Your task to perform on an android device: star an email in the gmail app Image 0: 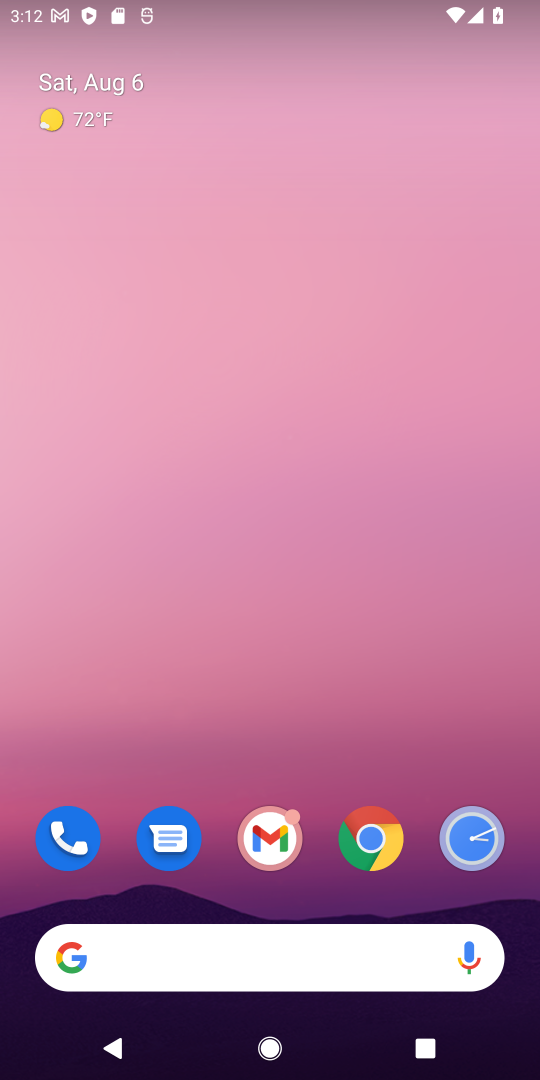
Step 0: click (266, 833)
Your task to perform on an android device: star an email in the gmail app Image 1: 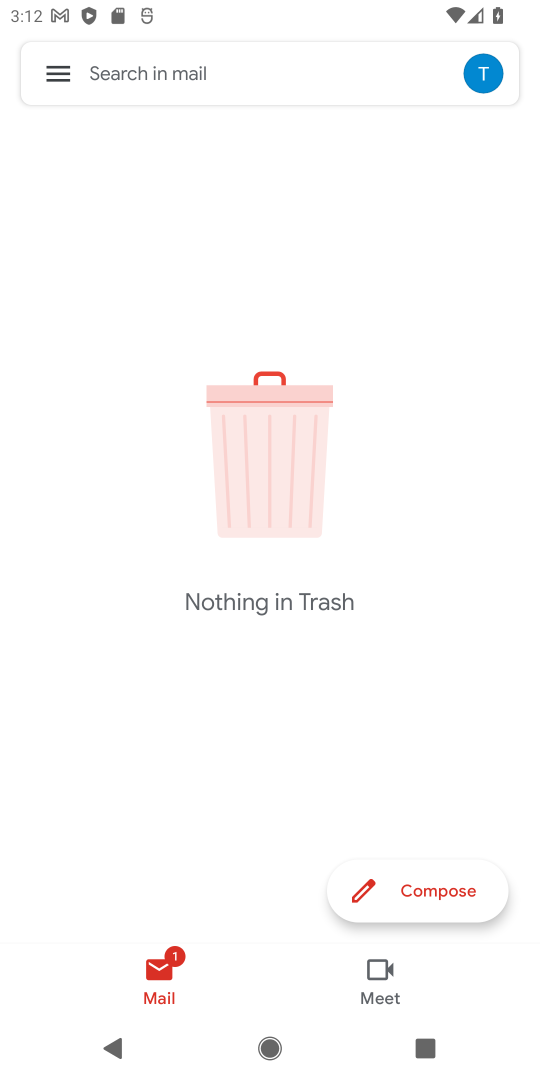
Step 1: click (44, 77)
Your task to perform on an android device: star an email in the gmail app Image 2: 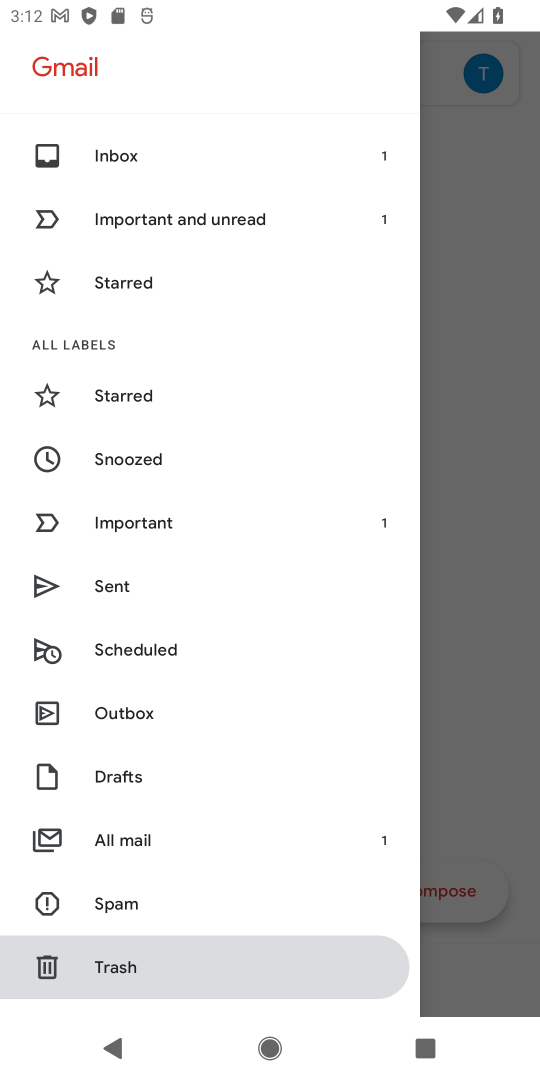
Step 2: click (120, 151)
Your task to perform on an android device: star an email in the gmail app Image 3: 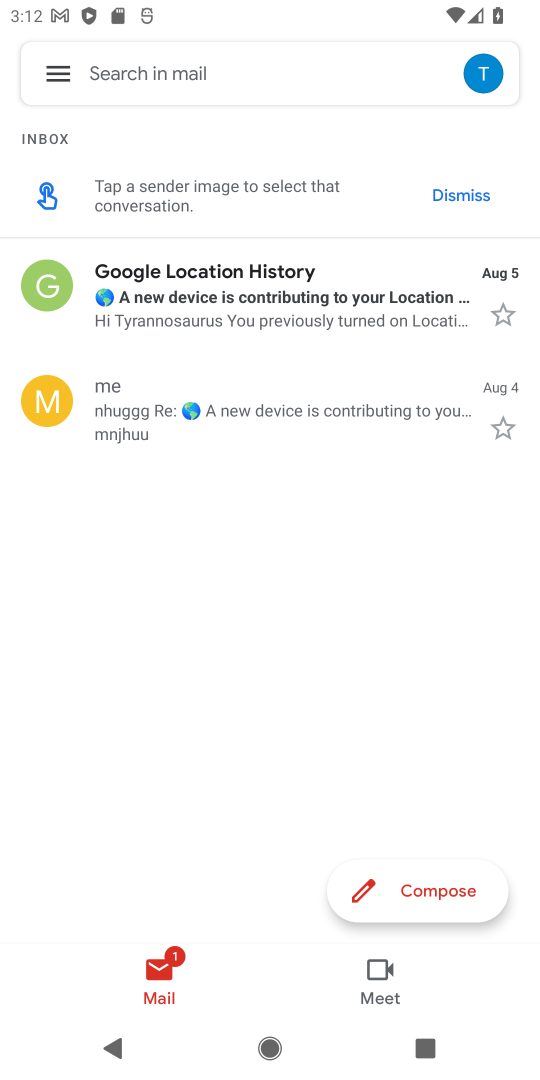
Step 3: click (498, 319)
Your task to perform on an android device: star an email in the gmail app Image 4: 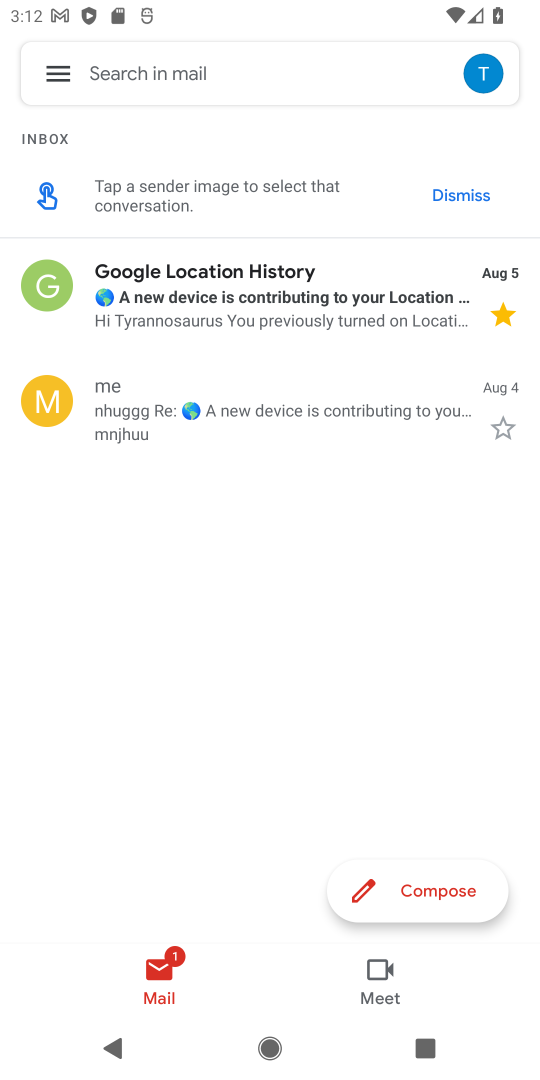
Step 4: task complete